Your task to perform on an android device: Go to Amazon Image 0: 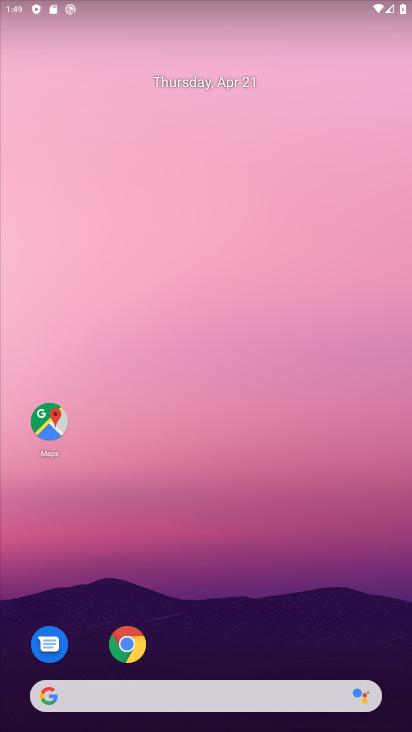
Step 0: click (118, 659)
Your task to perform on an android device: Go to Amazon Image 1: 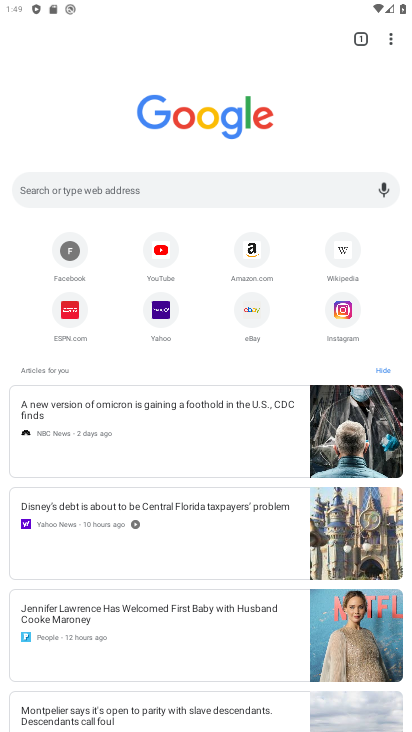
Step 1: click (259, 254)
Your task to perform on an android device: Go to Amazon Image 2: 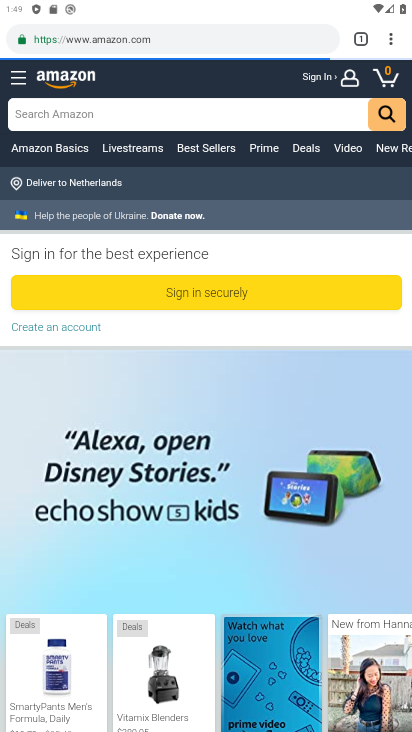
Step 2: task complete